Your task to perform on an android device: check android version Image 0: 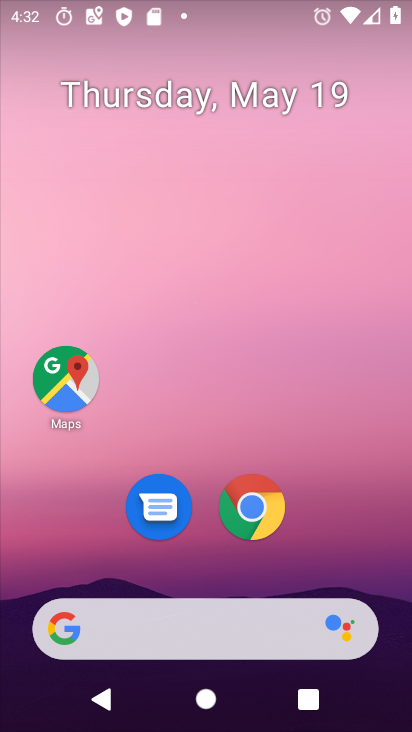
Step 0: drag from (404, 666) to (319, 396)
Your task to perform on an android device: check android version Image 1: 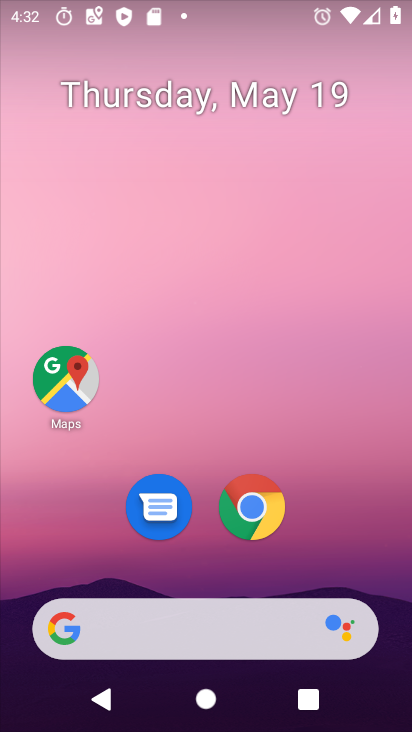
Step 1: drag from (392, 647) to (314, 229)
Your task to perform on an android device: check android version Image 2: 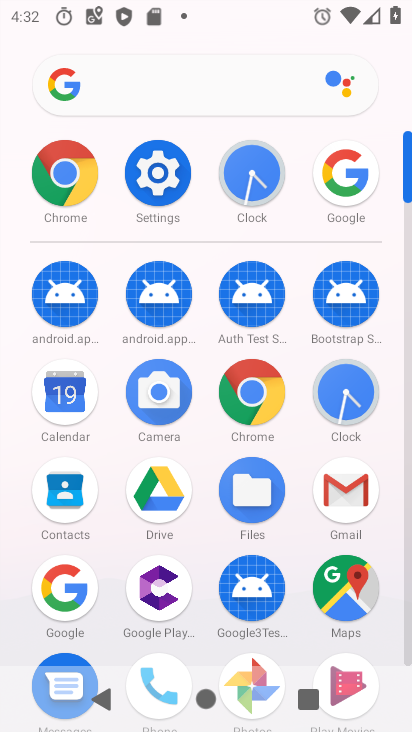
Step 2: click (158, 177)
Your task to perform on an android device: check android version Image 3: 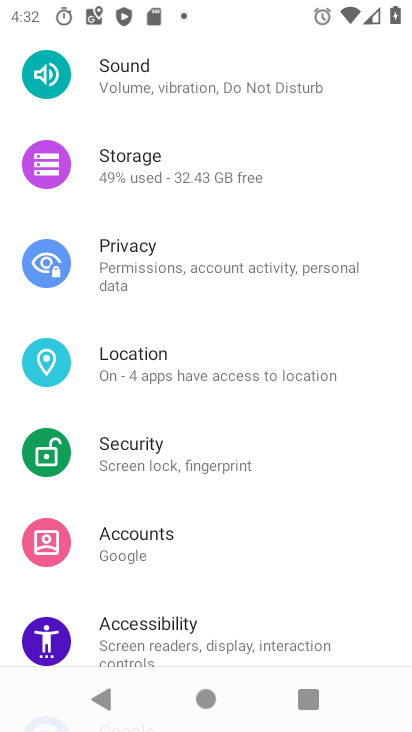
Step 3: drag from (377, 642) to (296, 249)
Your task to perform on an android device: check android version Image 4: 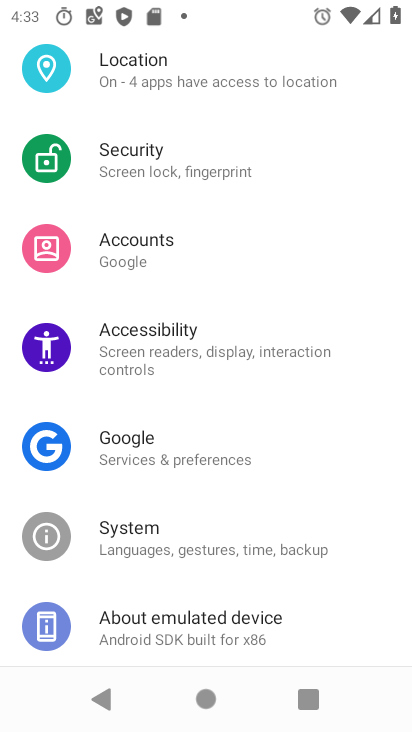
Step 4: drag from (332, 637) to (324, 310)
Your task to perform on an android device: check android version Image 5: 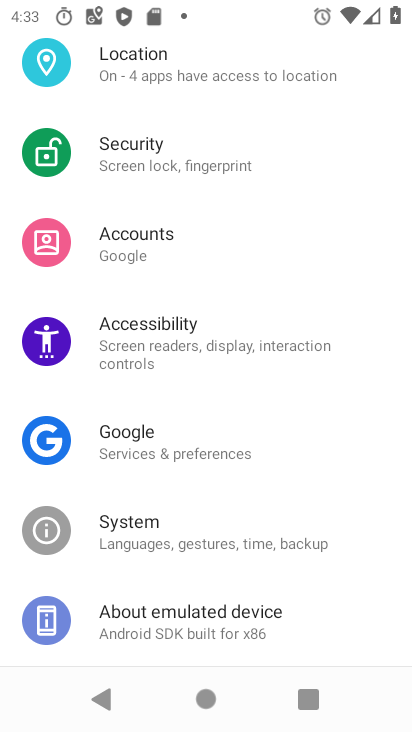
Step 5: drag from (367, 629) to (358, 407)
Your task to perform on an android device: check android version Image 6: 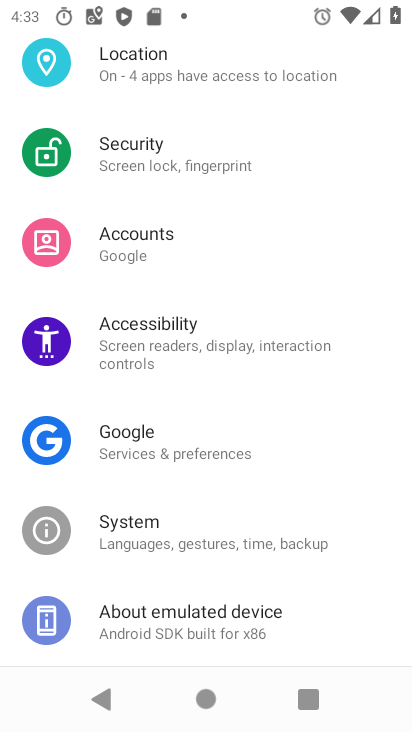
Step 6: click (130, 617)
Your task to perform on an android device: check android version Image 7: 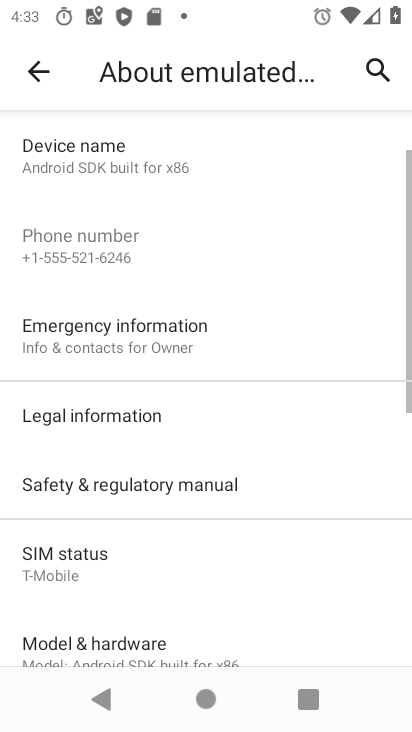
Step 7: drag from (317, 628) to (297, 351)
Your task to perform on an android device: check android version Image 8: 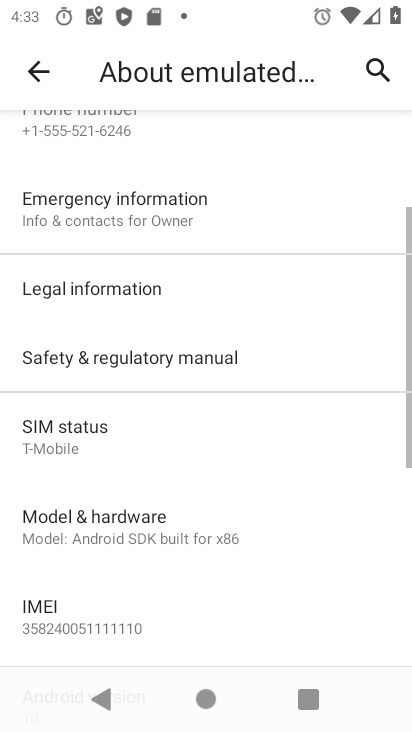
Step 8: drag from (298, 614) to (301, 401)
Your task to perform on an android device: check android version Image 9: 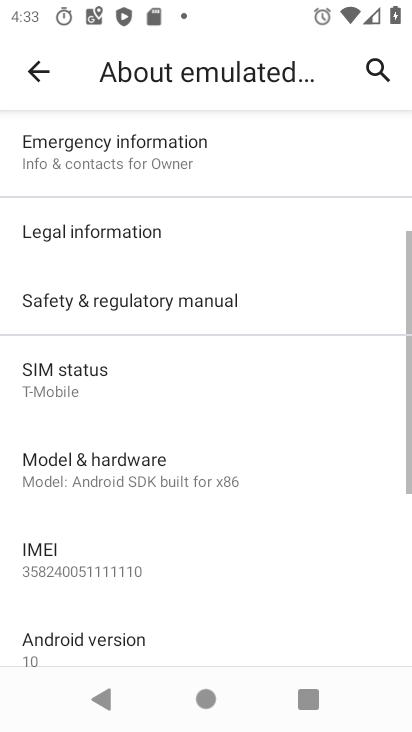
Step 9: drag from (248, 627) to (251, 388)
Your task to perform on an android device: check android version Image 10: 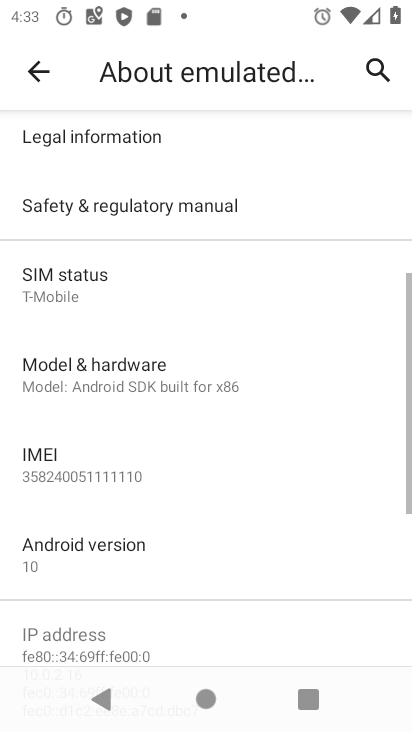
Step 10: click (53, 548)
Your task to perform on an android device: check android version Image 11: 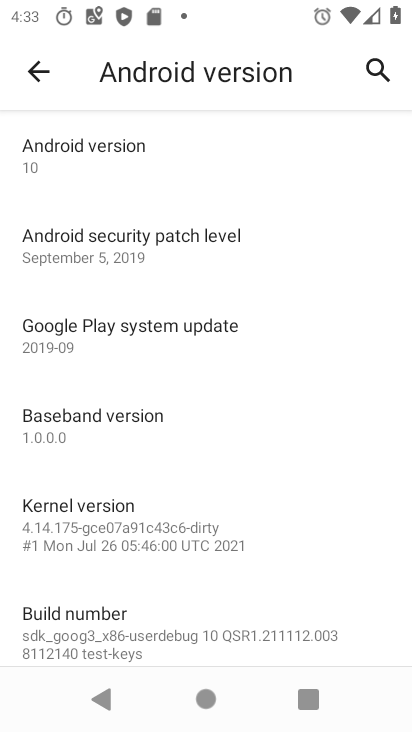
Step 11: click (71, 146)
Your task to perform on an android device: check android version Image 12: 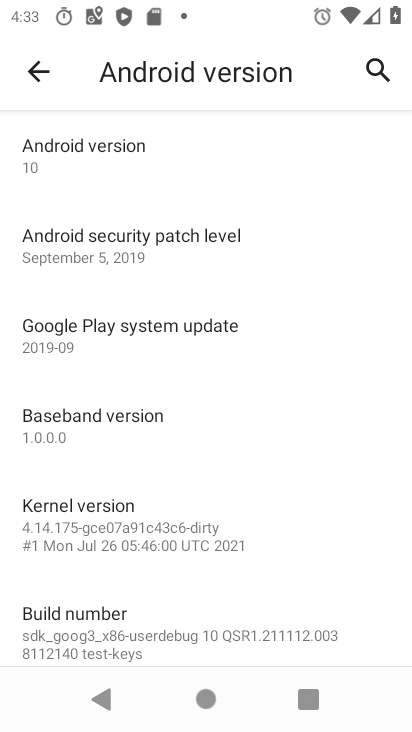
Step 12: task complete